Your task to perform on an android device: Open privacy settings Image 0: 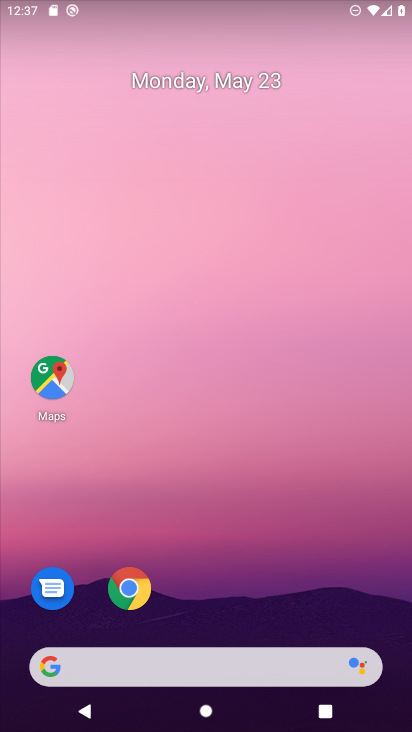
Step 0: drag from (195, 544) to (275, 169)
Your task to perform on an android device: Open privacy settings Image 1: 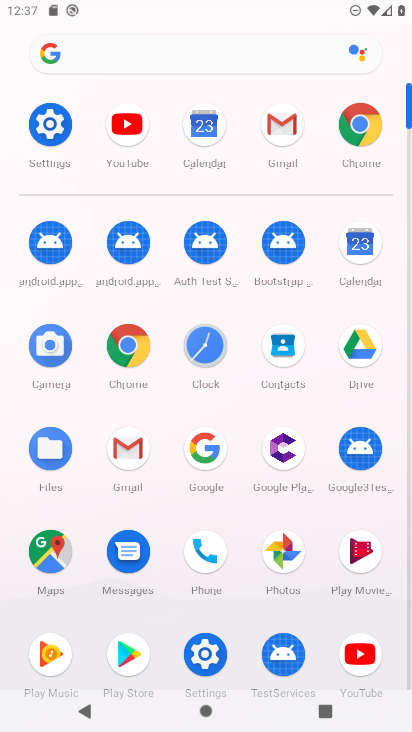
Step 1: click (45, 116)
Your task to perform on an android device: Open privacy settings Image 2: 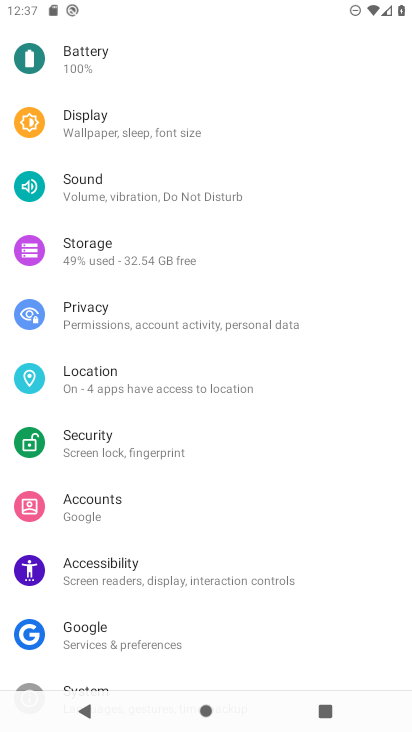
Step 2: click (99, 307)
Your task to perform on an android device: Open privacy settings Image 3: 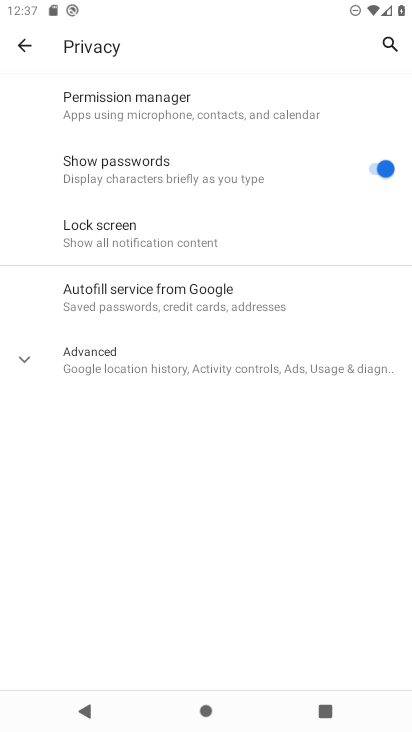
Step 3: click (118, 368)
Your task to perform on an android device: Open privacy settings Image 4: 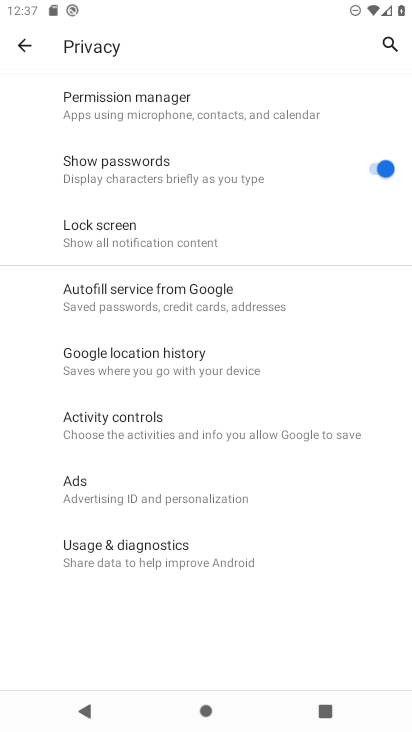
Step 4: task complete